Your task to perform on an android device: toggle show notifications on the lock screen Image 0: 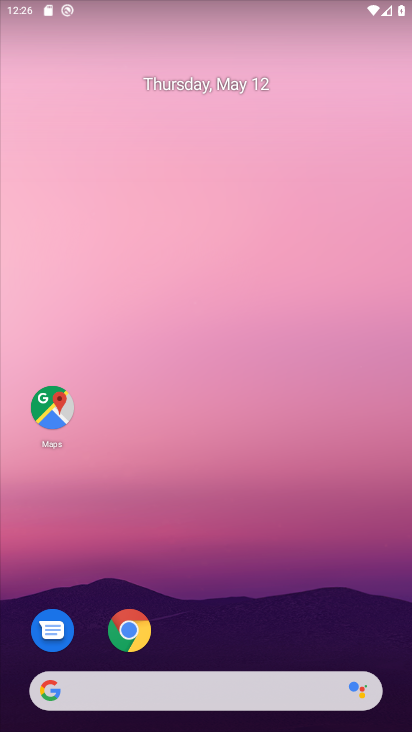
Step 0: click (298, 12)
Your task to perform on an android device: toggle show notifications on the lock screen Image 1: 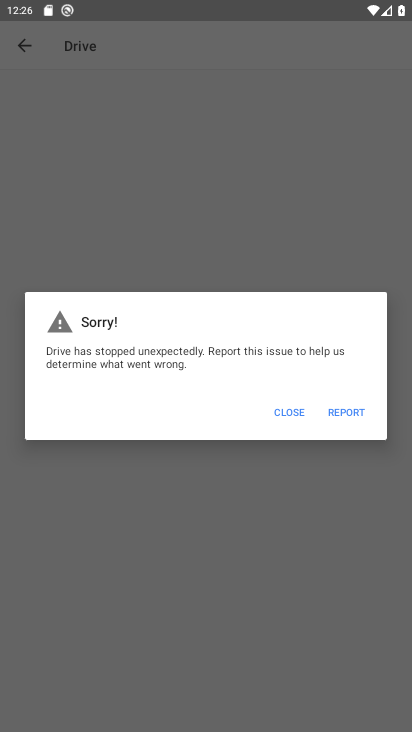
Step 1: press home button
Your task to perform on an android device: toggle show notifications on the lock screen Image 2: 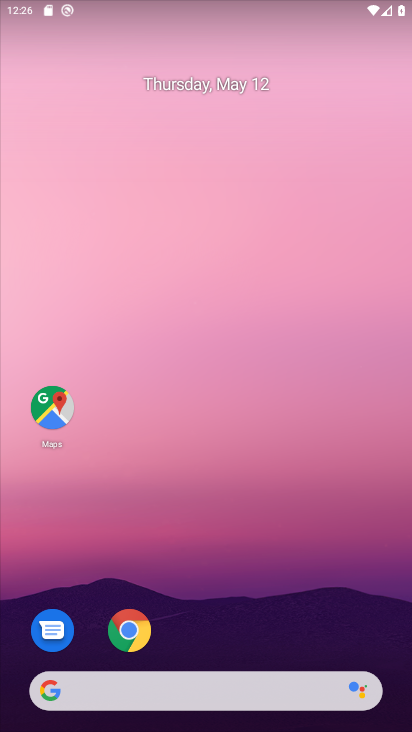
Step 2: drag from (268, 588) to (276, 89)
Your task to perform on an android device: toggle show notifications on the lock screen Image 3: 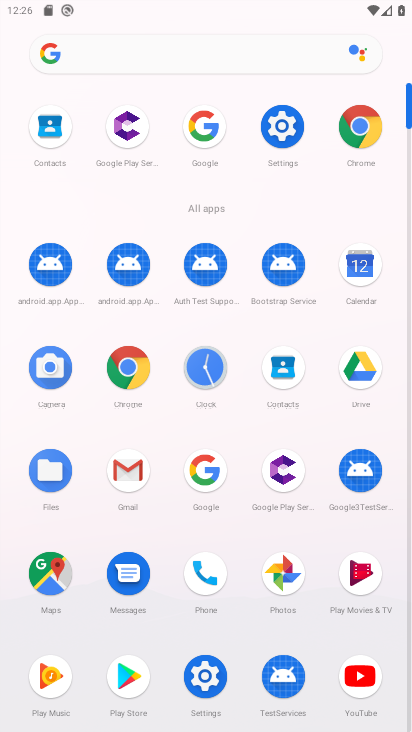
Step 3: click (269, 115)
Your task to perform on an android device: toggle show notifications on the lock screen Image 4: 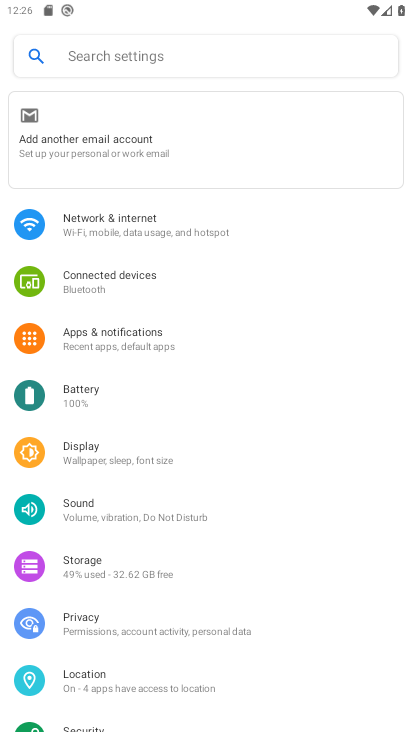
Step 4: click (122, 332)
Your task to perform on an android device: toggle show notifications on the lock screen Image 5: 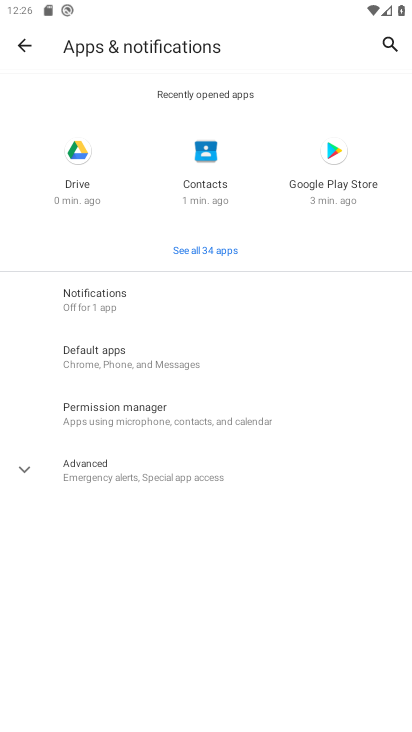
Step 5: click (116, 300)
Your task to perform on an android device: toggle show notifications on the lock screen Image 6: 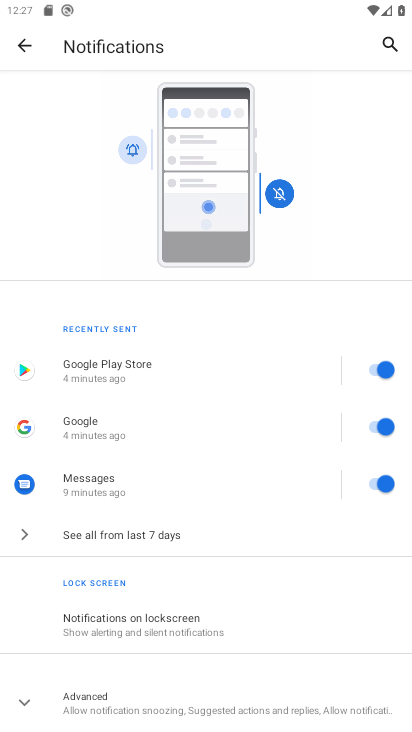
Step 6: drag from (307, 586) to (305, 242)
Your task to perform on an android device: toggle show notifications on the lock screen Image 7: 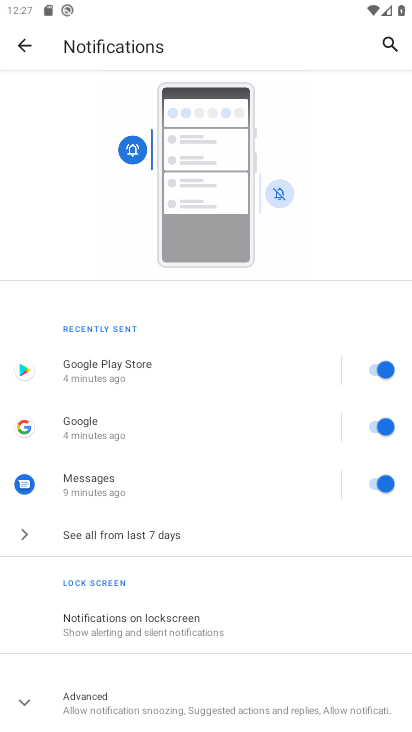
Step 7: click (179, 620)
Your task to perform on an android device: toggle show notifications on the lock screen Image 8: 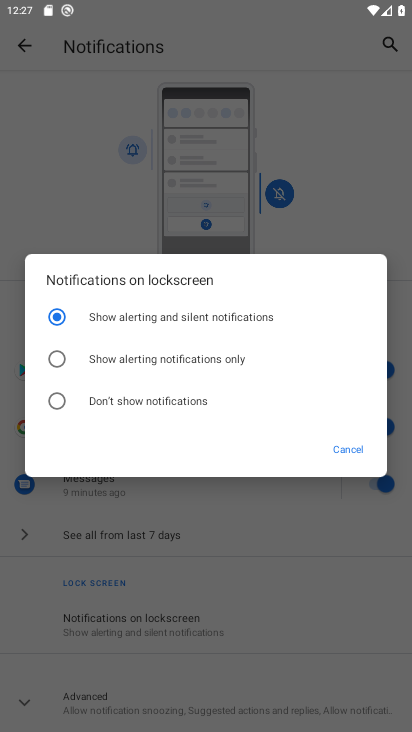
Step 8: click (146, 392)
Your task to perform on an android device: toggle show notifications on the lock screen Image 9: 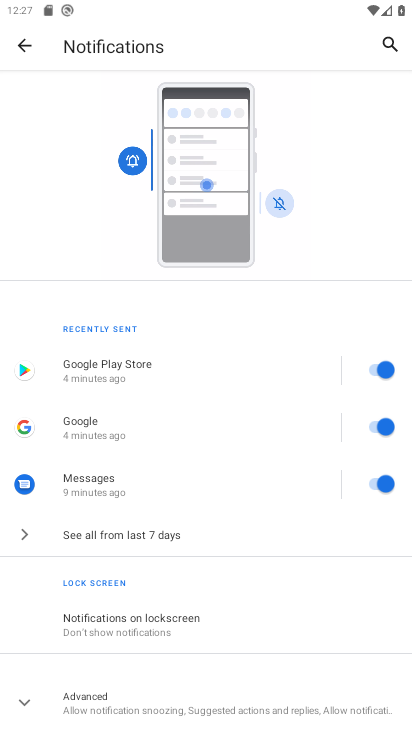
Step 9: task complete